Your task to perform on an android device: Open location settings Image 0: 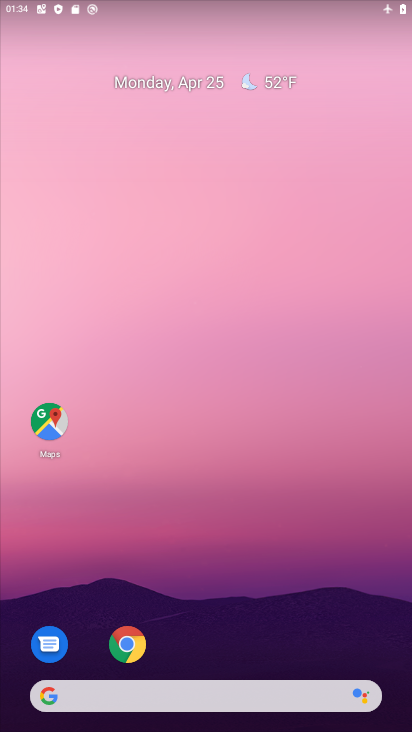
Step 0: drag from (196, 649) to (203, 141)
Your task to perform on an android device: Open location settings Image 1: 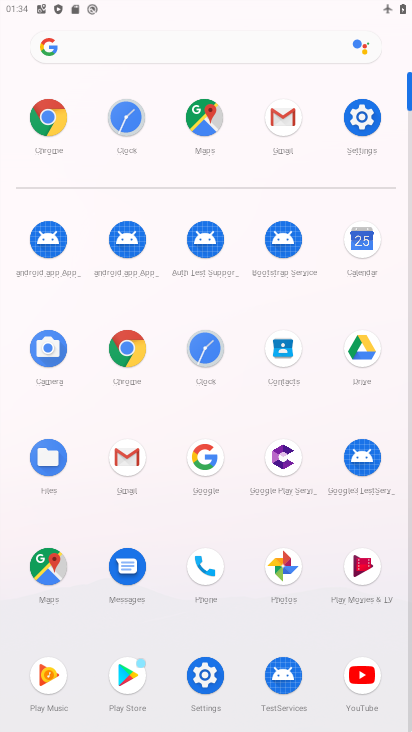
Step 1: click (195, 666)
Your task to perform on an android device: Open location settings Image 2: 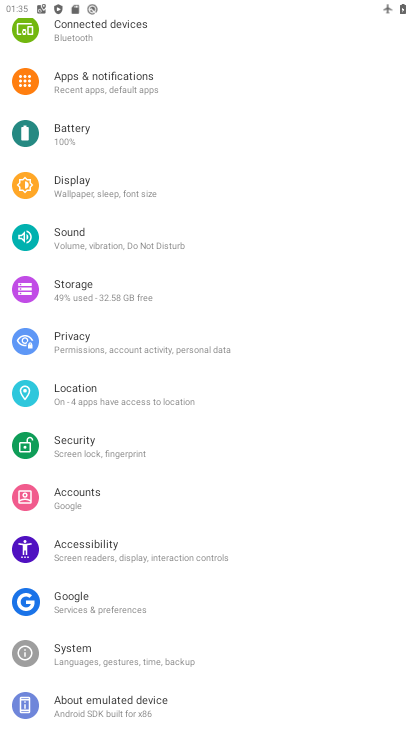
Step 2: click (157, 390)
Your task to perform on an android device: Open location settings Image 3: 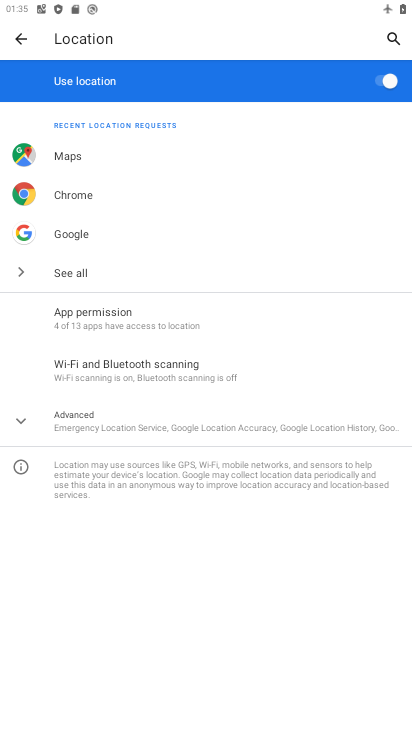
Step 3: task complete